Your task to perform on an android device: Show me popular games on the Play Store Image 0: 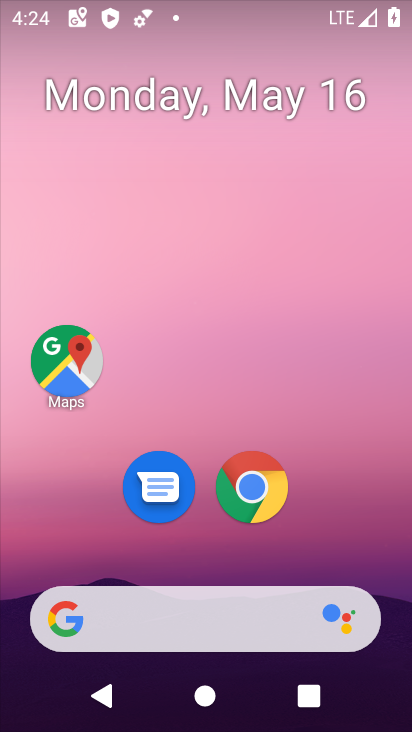
Step 0: drag from (399, 614) to (347, 277)
Your task to perform on an android device: Show me popular games on the Play Store Image 1: 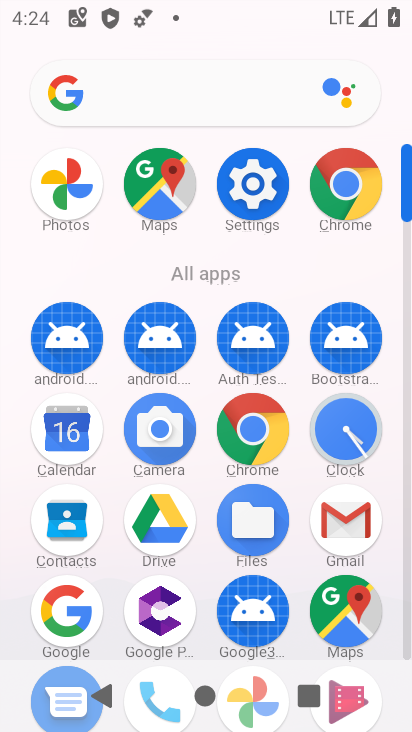
Step 1: click (408, 640)
Your task to perform on an android device: Show me popular games on the Play Store Image 2: 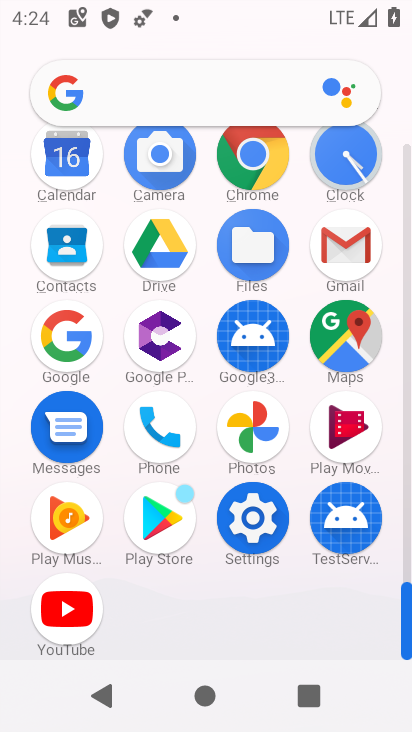
Step 2: click (165, 515)
Your task to perform on an android device: Show me popular games on the Play Store Image 3: 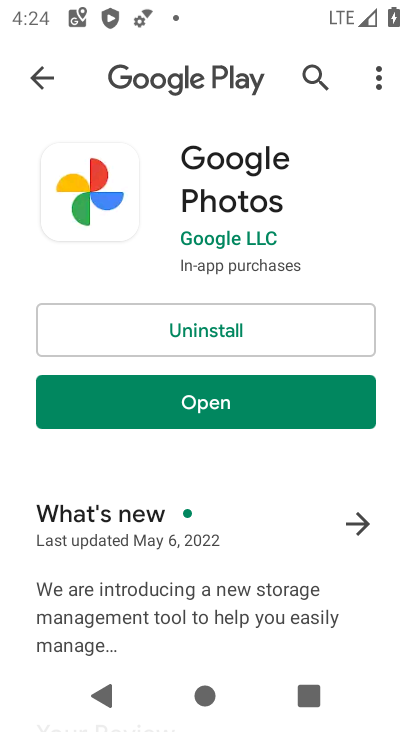
Step 3: click (217, 409)
Your task to perform on an android device: Show me popular games on the Play Store Image 4: 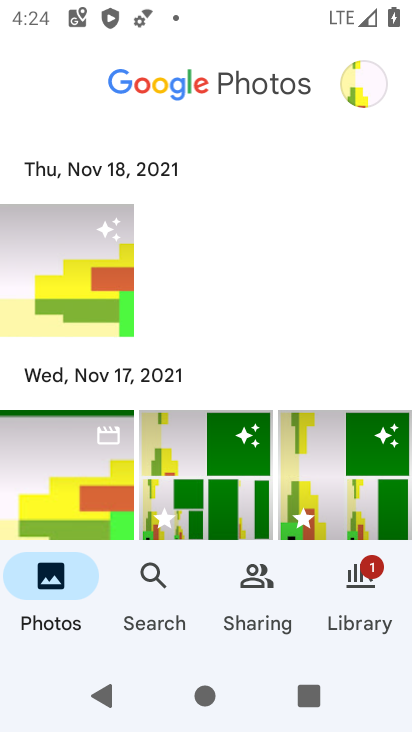
Step 4: press back button
Your task to perform on an android device: Show me popular games on the Play Store Image 5: 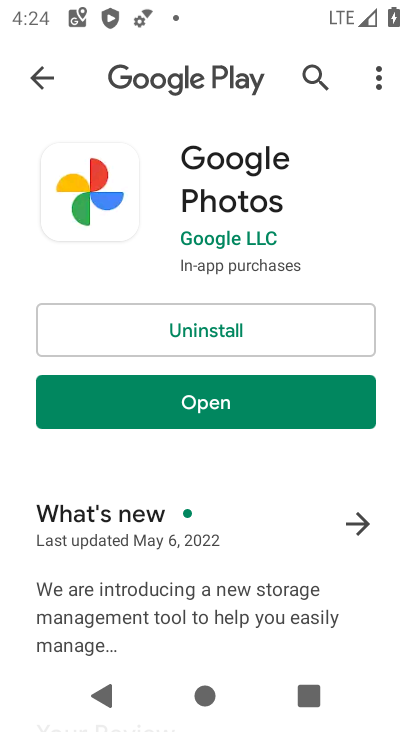
Step 5: press back button
Your task to perform on an android device: Show me popular games on the Play Store Image 6: 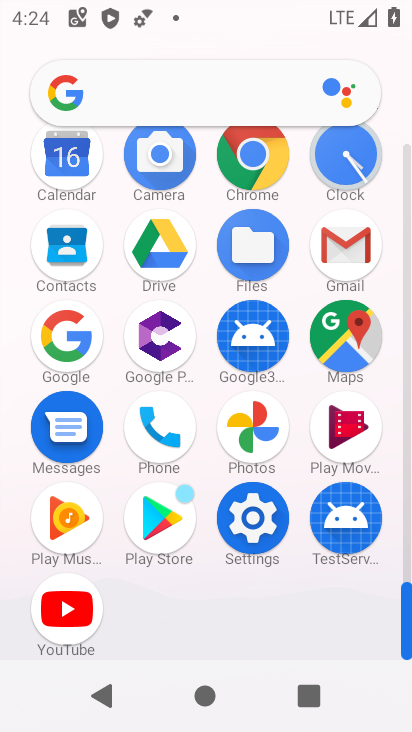
Step 6: click (161, 516)
Your task to perform on an android device: Show me popular games on the Play Store Image 7: 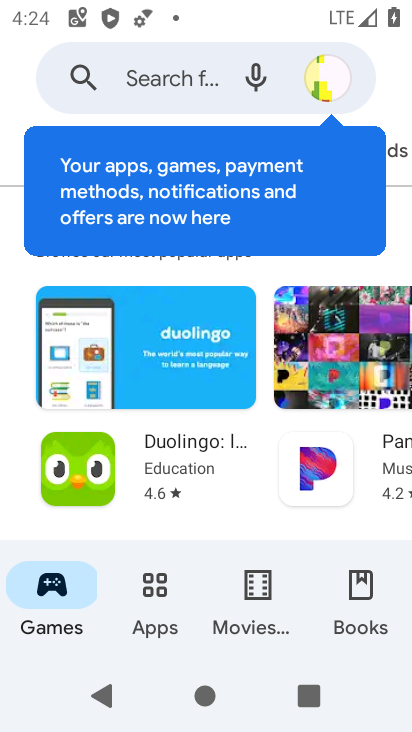
Step 7: drag from (257, 510) to (192, 110)
Your task to perform on an android device: Show me popular games on the Play Store Image 8: 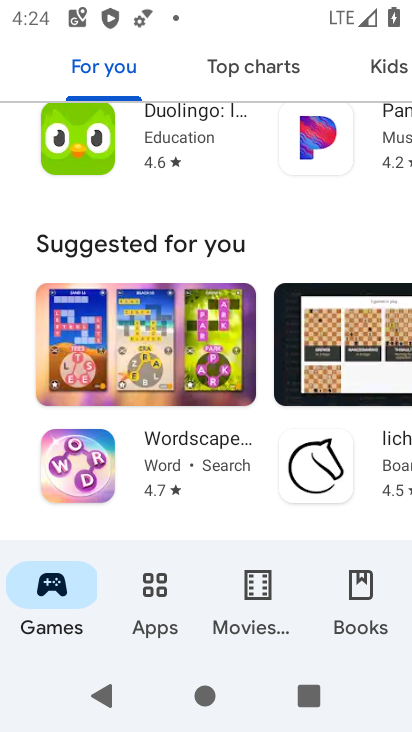
Step 8: drag from (241, 504) to (241, 182)
Your task to perform on an android device: Show me popular games on the Play Store Image 9: 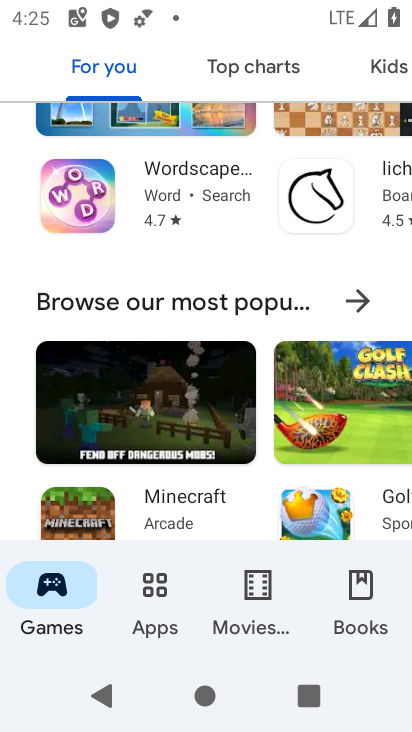
Step 9: click (287, 301)
Your task to perform on an android device: Show me popular games on the Play Store Image 10: 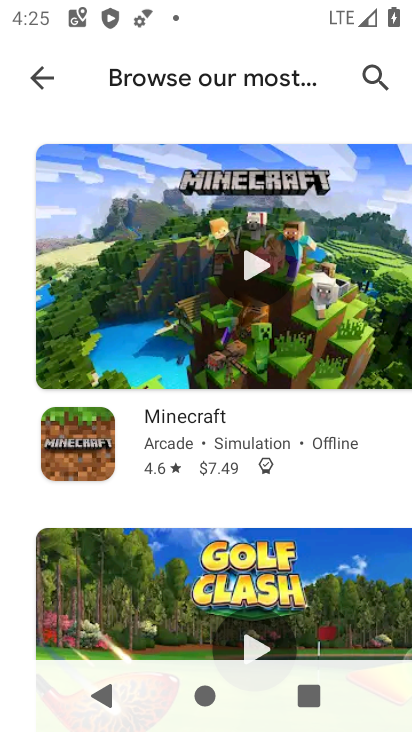
Step 10: task complete